Your task to perform on an android device: Clear the cart on bestbuy. Add "razer blade" to the cart on bestbuy Image 0: 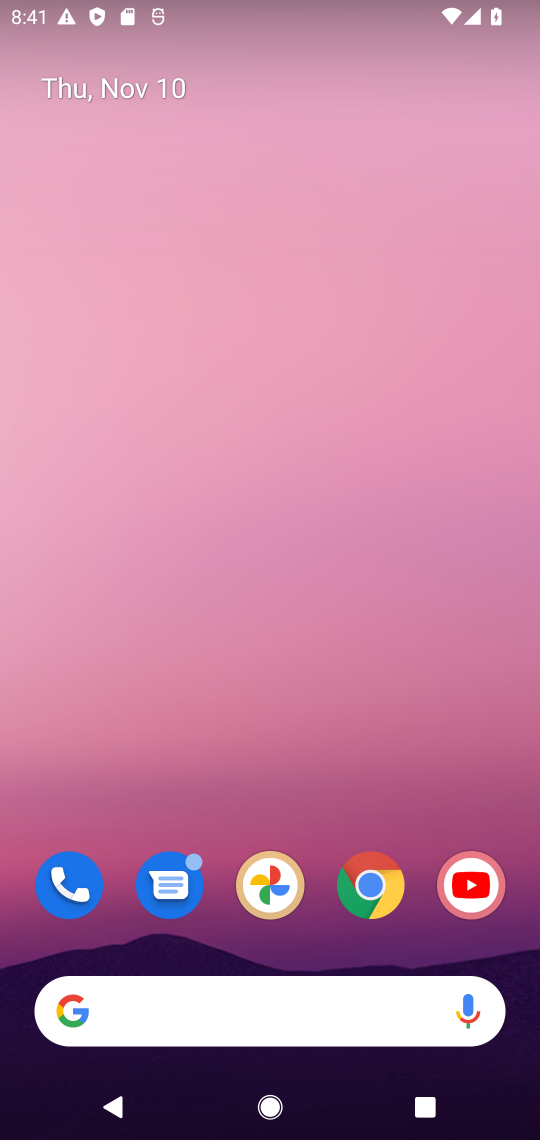
Step 0: click (361, 880)
Your task to perform on an android device: Clear the cart on bestbuy. Add "razer blade" to the cart on bestbuy Image 1: 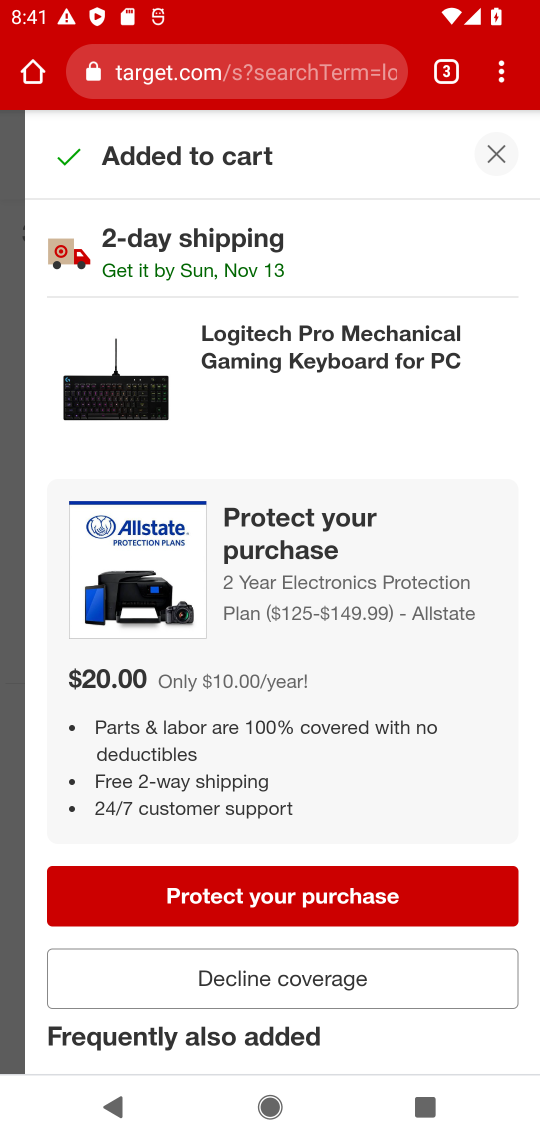
Step 1: click (456, 77)
Your task to perform on an android device: Clear the cart on bestbuy. Add "razer blade" to the cart on bestbuy Image 2: 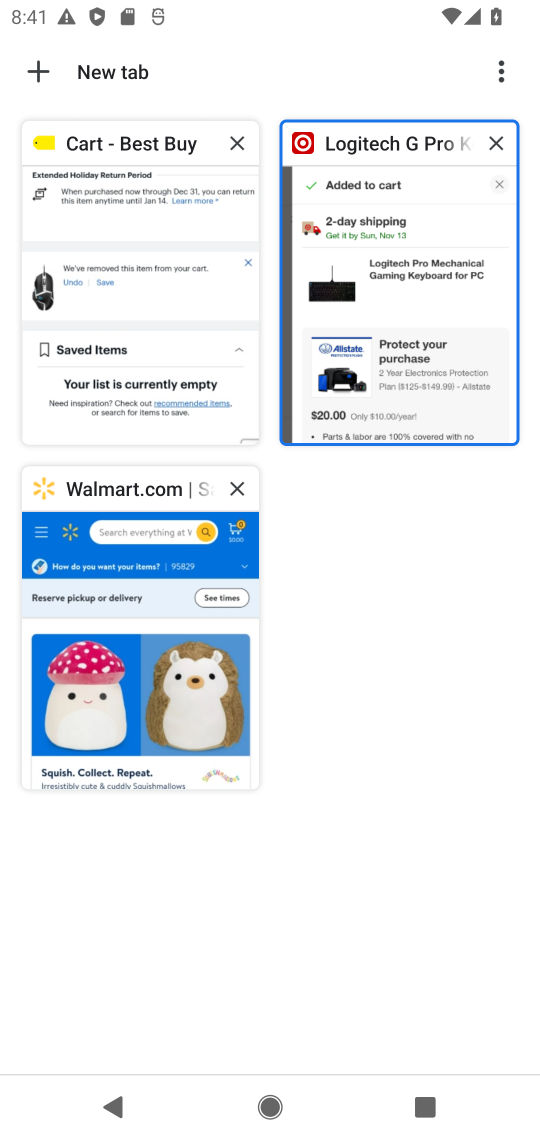
Step 2: click (179, 299)
Your task to perform on an android device: Clear the cart on bestbuy. Add "razer blade" to the cart on bestbuy Image 3: 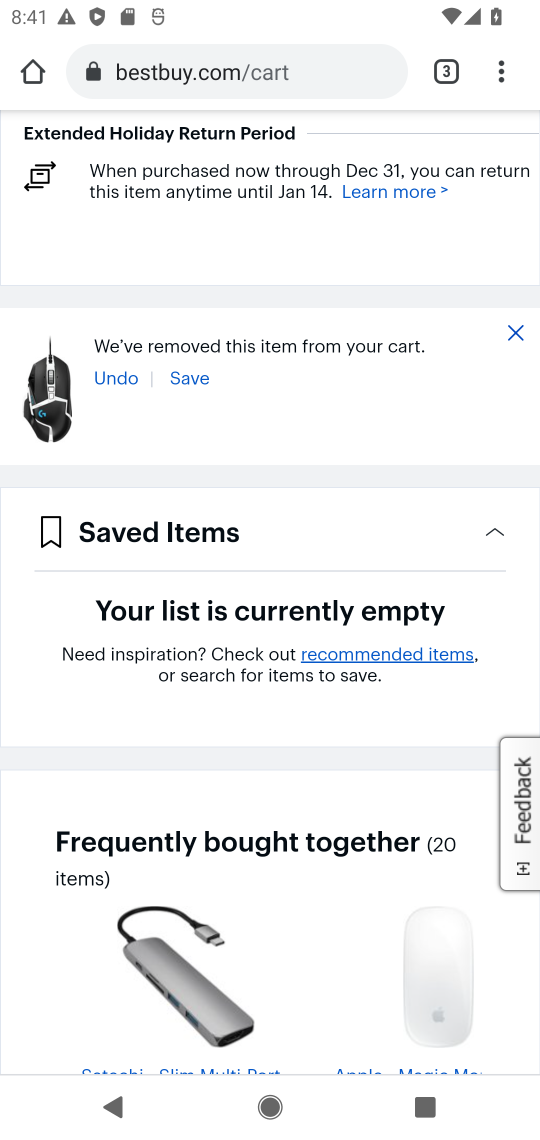
Step 3: drag from (371, 174) to (296, 907)
Your task to perform on an android device: Clear the cart on bestbuy. Add "razer blade" to the cart on bestbuy Image 4: 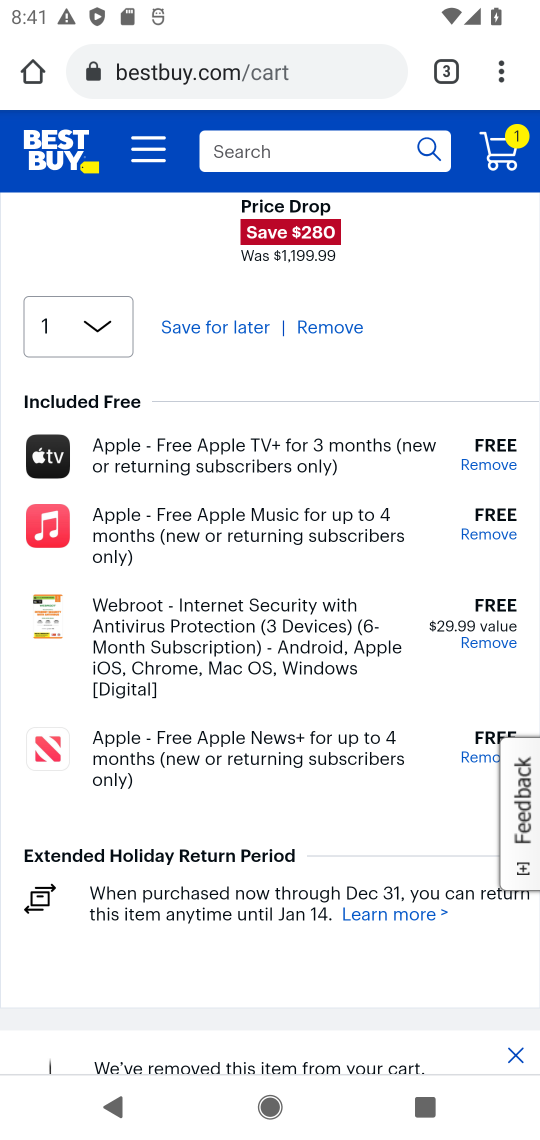
Step 4: click (347, 157)
Your task to perform on an android device: Clear the cart on bestbuy. Add "razer blade" to the cart on bestbuy Image 5: 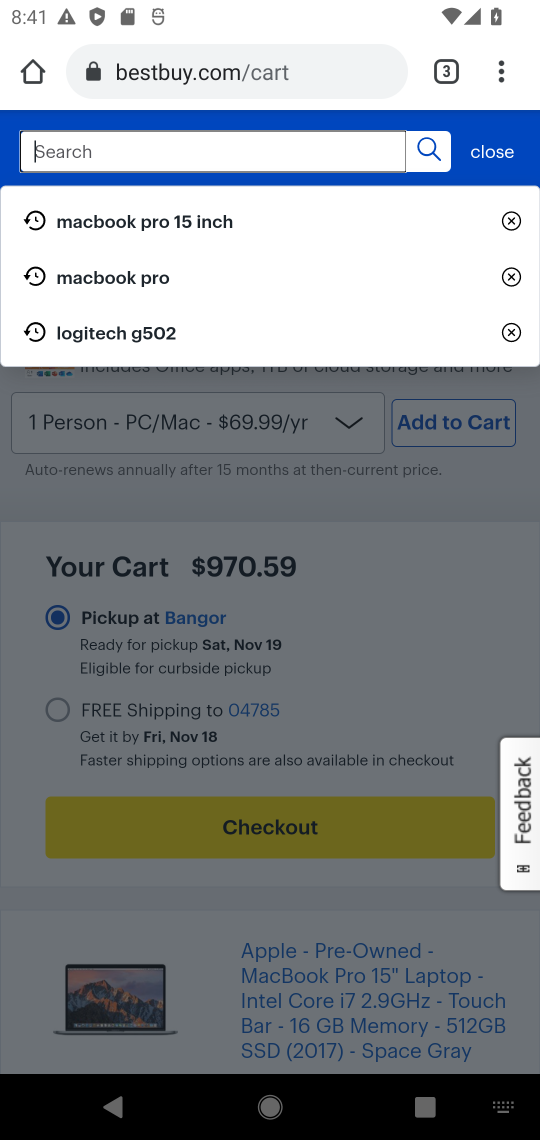
Step 5: type "razer blade"
Your task to perform on an android device: Clear the cart on bestbuy. Add "razer blade" to the cart on bestbuy Image 6: 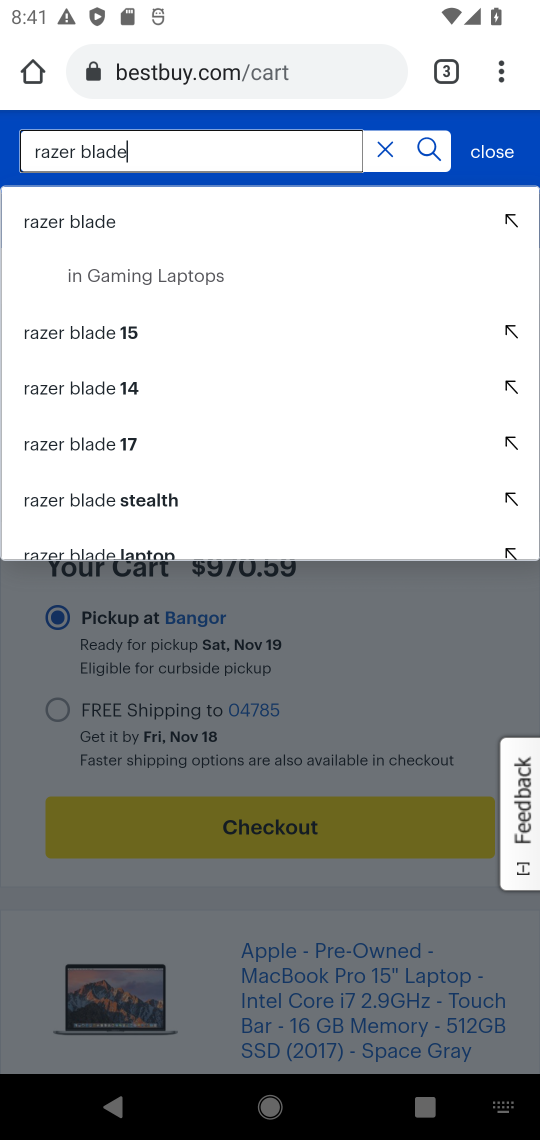
Step 6: click (47, 213)
Your task to perform on an android device: Clear the cart on bestbuy. Add "razer blade" to the cart on bestbuy Image 7: 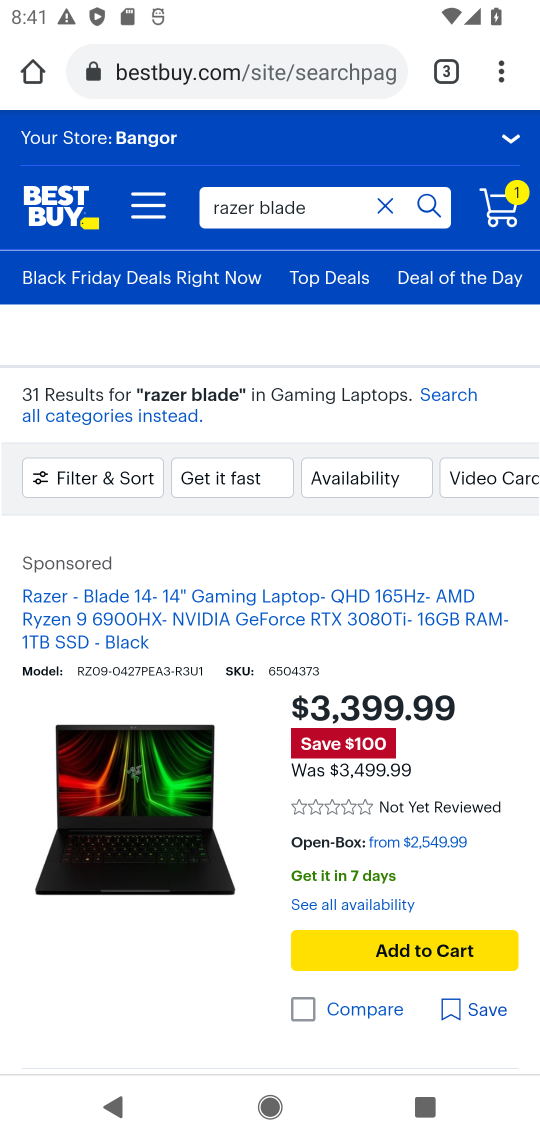
Step 7: click (434, 939)
Your task to perform on an android device: Clear the cart on bestbuy. Add "razer blade" to the cart on bestbuy Image 8: 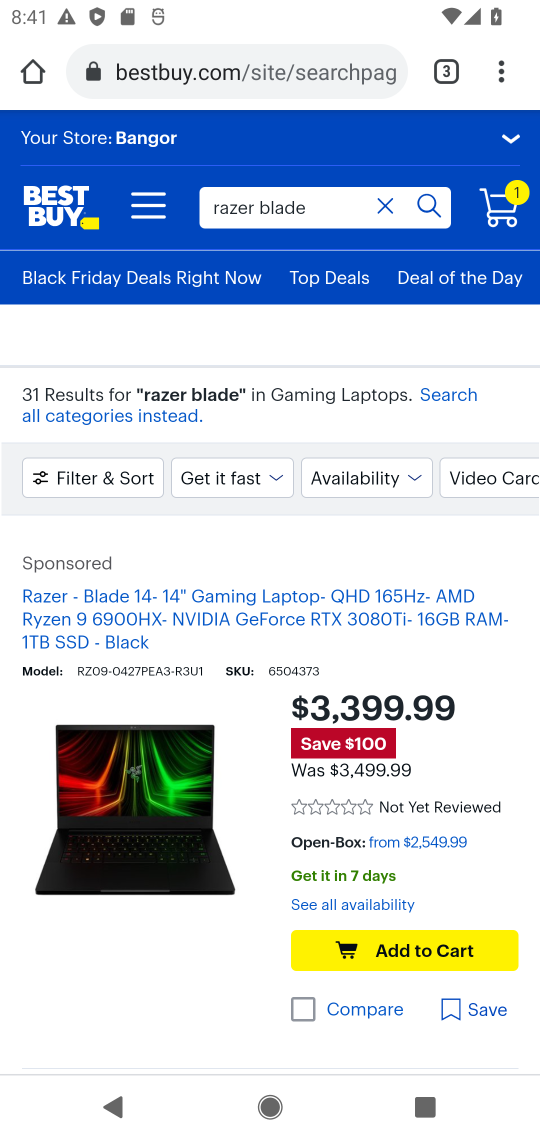
Step 8: click (435, 957)
Your task to perform on an android device: Clear the cart on bestbuy. Add "razer blade" to the cart on bestbuy Image 9: 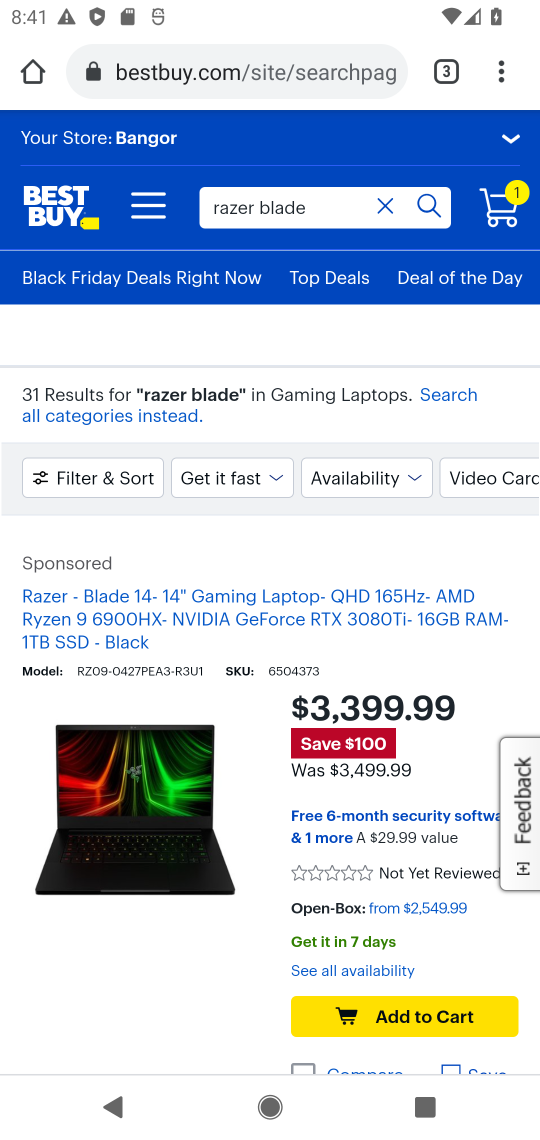
Step 9: click (428, 1013)
Your task to perform on an android device: Clear the cart on bestbuy. Add "razer blade" to the cart on bestbuy Image 10: 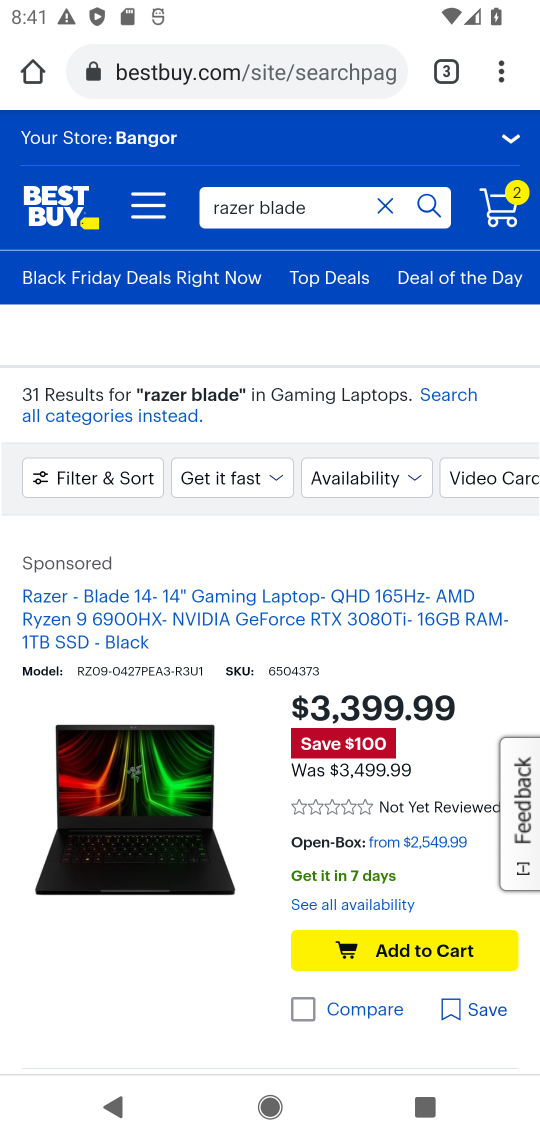
Step 10: click (507, 212)
Your task to perform on an android device: Clear the cart on bestbuy. Add "razer blade" to the cart on bestbuy Image 11: 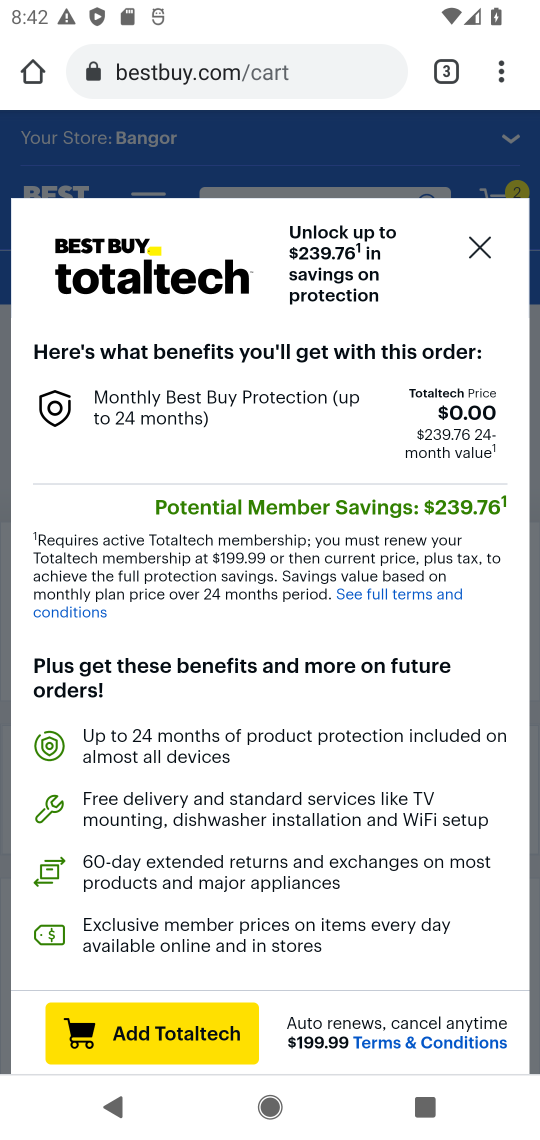
Step 11: click (485, 245)
Your task to perform on an android device: Clear the cart on bestbuy. Add "razer blade" to the cart on bestbuy Image 12: 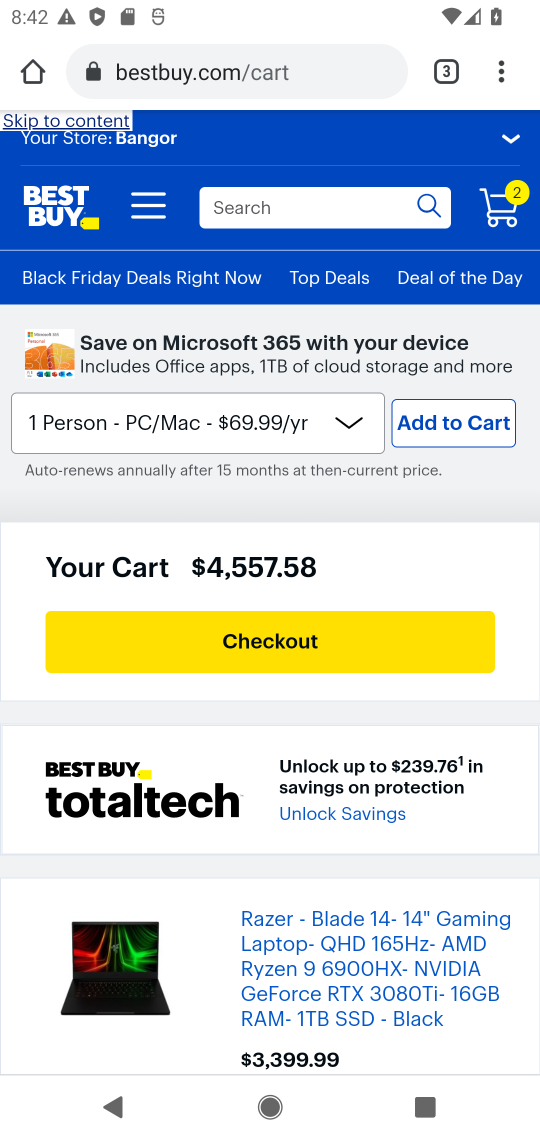
Step 12: drag from (370, 728) to (411, 287)
Your task to perform on an android device: Clear the cart on bestbuy. Add "razer blade" to the cart on bestbuy Image 13: 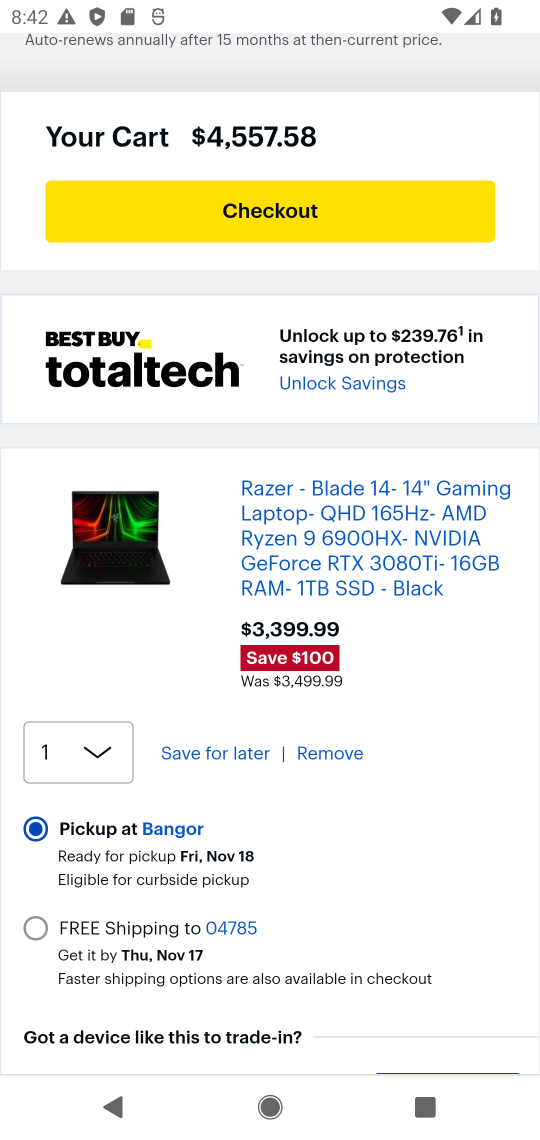
Step 13: drag from (330, 939) to (398, 330)
Your task to perform on an android device: Clear the cart on bestbuy. Add "razer blade" to the cart on bestbuy Image 14: 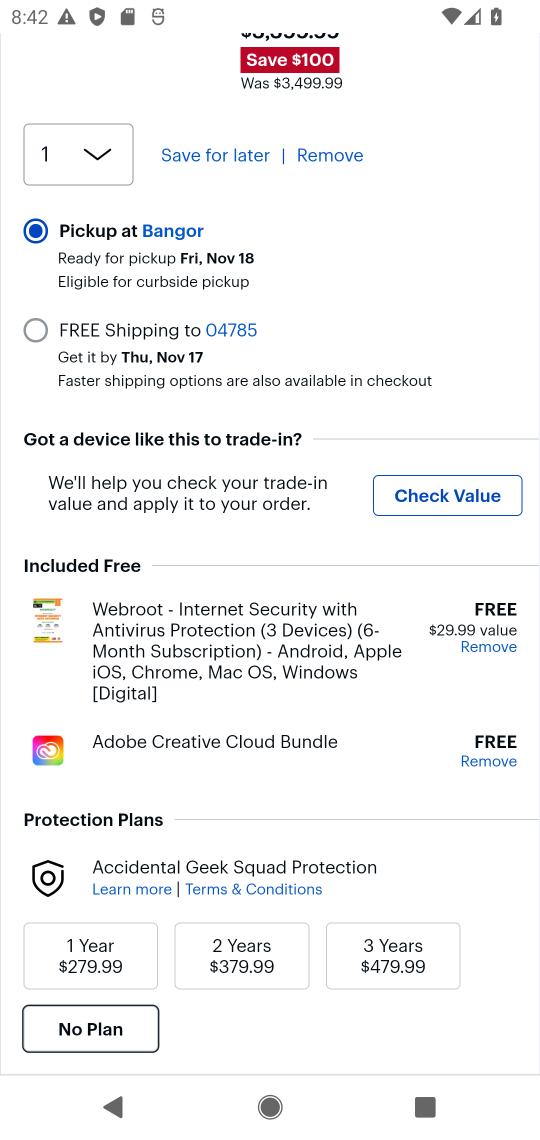
Step 14: drag from (335, 760) to (399, 256)
Your task to perform on an android device: Clear the cart on bestbuy. Add "razer blade" to the cart on bestbuy Image 15: 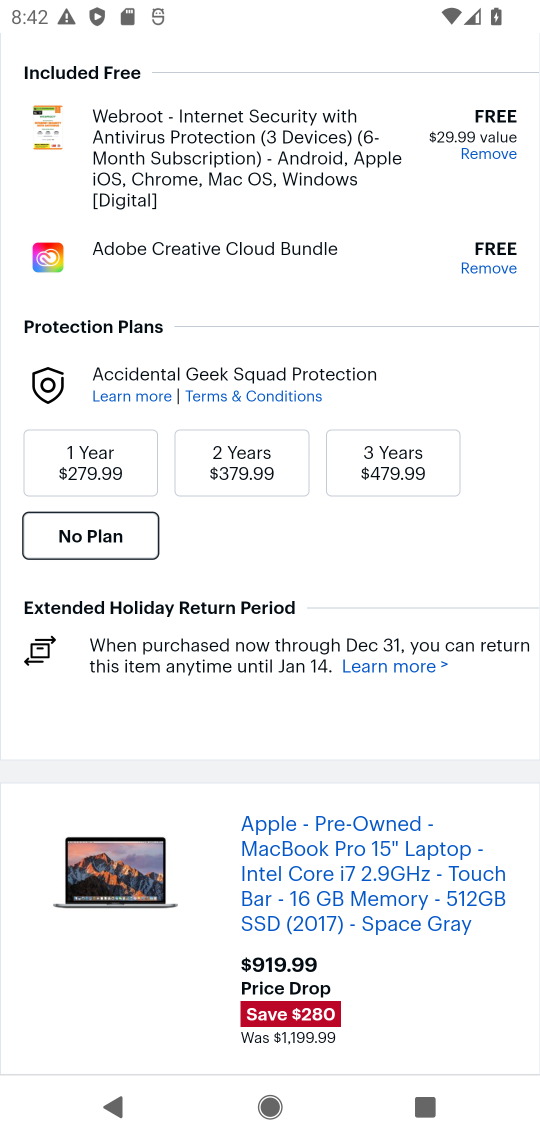
Step 15: drag from (304, 722) to (435, 176)
Your task to perform on an android device: Clear the cart on bestbuy. Add "razer blade" to the cart on bestbuy Image 16: 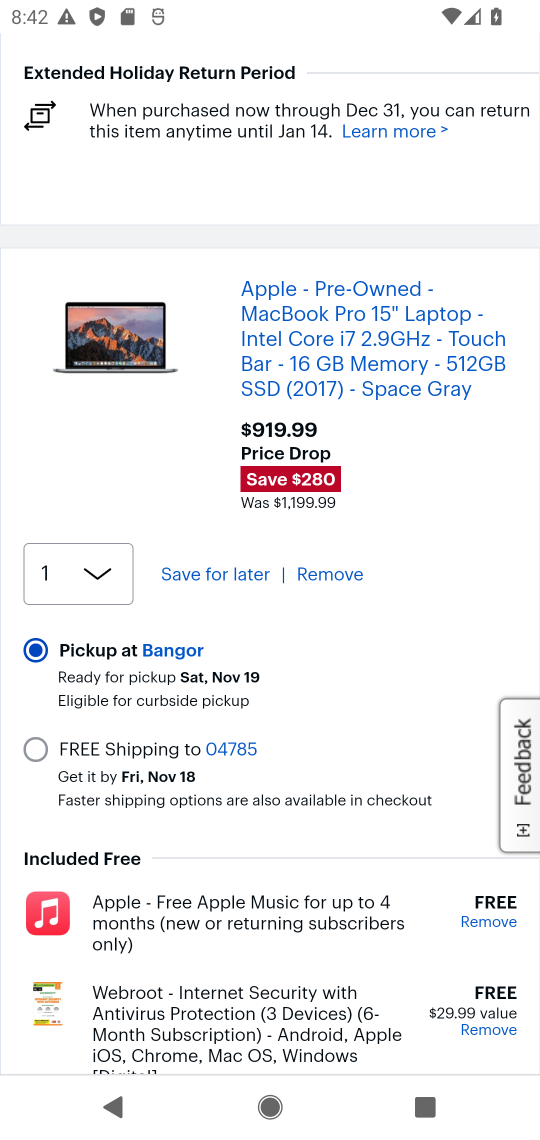
Step 16: click (322, 576)
Your task to perform on an android device: Clear the cart on bestbuy. Add "razer blade" to the cart on bestbuy Image 17: 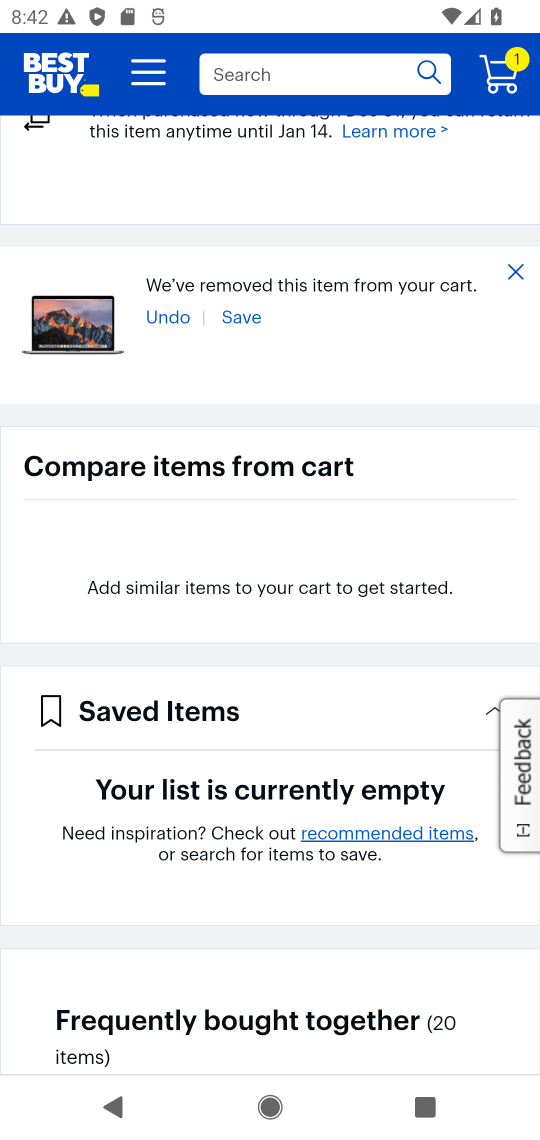
Step 17: task complete